Your task to perform on an android device: When is my next meeting? Image 0: 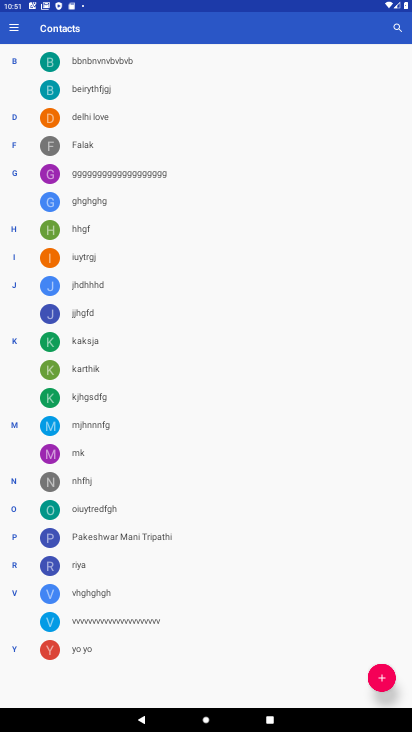
Step 0: press home button
Your task to perform on an android device: When is my next meeting? Image 1: 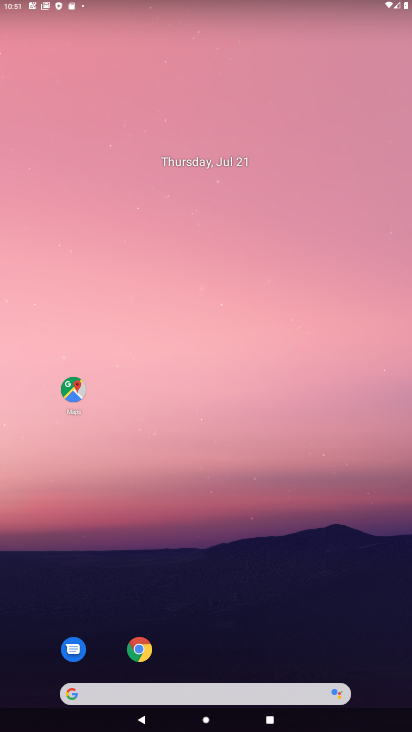
Step 1: drag from (225, 616) to (188, 30)
Your task to perform on an android device: When is my next meeting? Image 2: 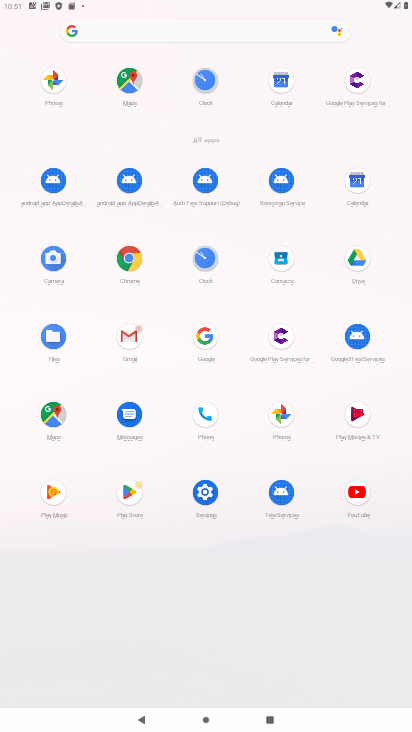
Step 2: click (358, 176)
Your task to perform on an android device: When is my next meeting? Image 3: 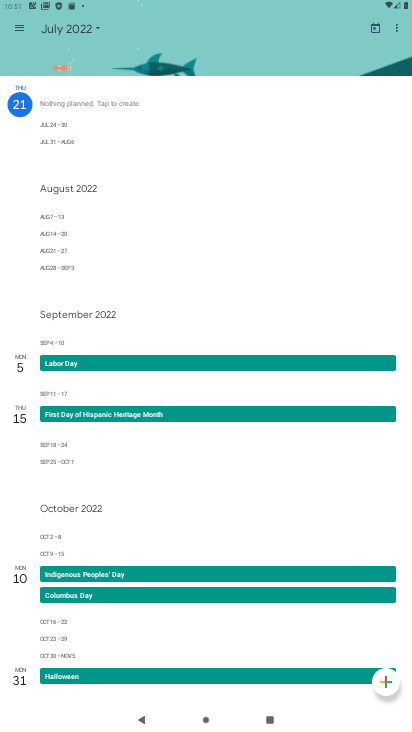
Step 3: click (69, 35)
Your task to perform on an android device: When is my next meeting? Image 4: 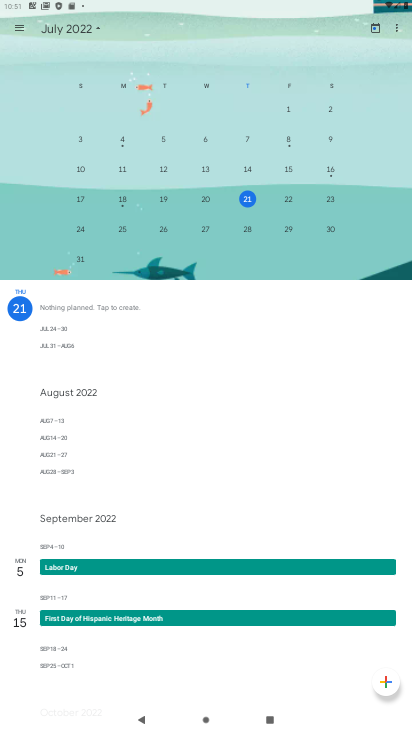
Step 4: click (249, 200)
Your task to perform on an android device: When is my next meeting? Image 5: 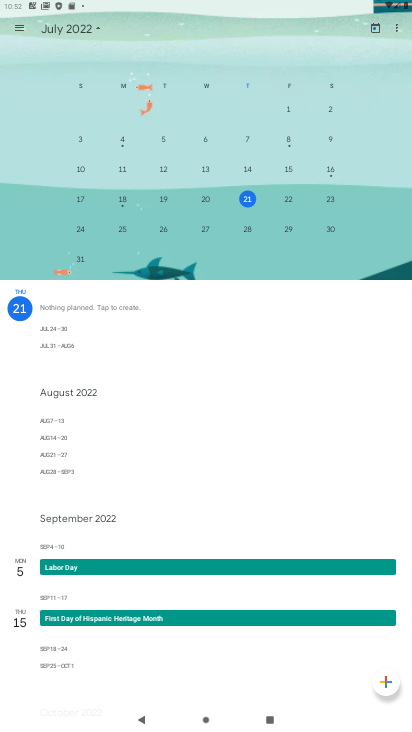
Step 5: task complete